Your task to perform on an android device: check google app version Image 0: 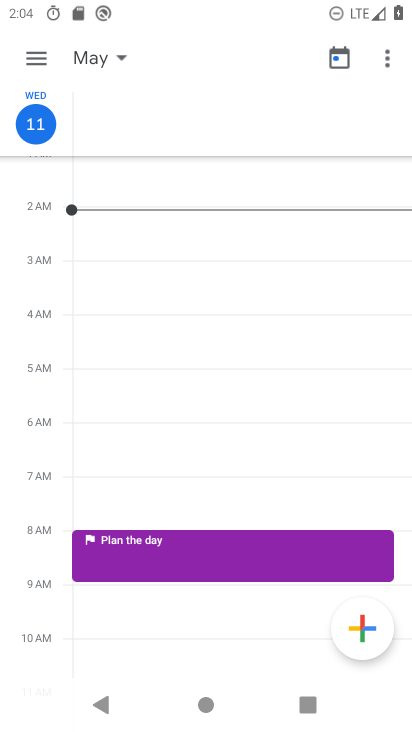
Step 0: press home button
Your task to perform on an android device: check google app version Image 1: 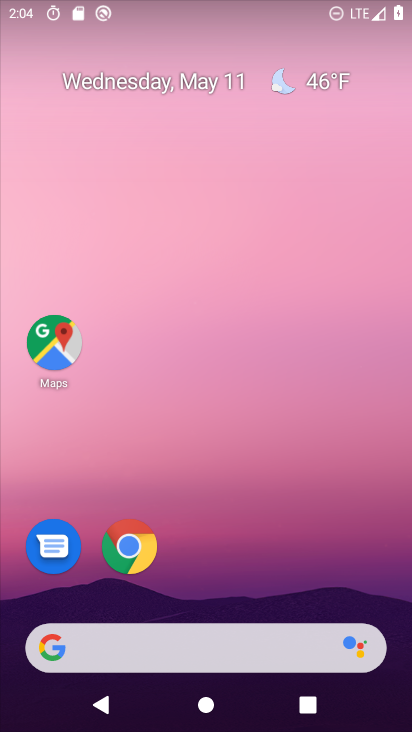
Step 1: drag from (260, 669) to (250, 188)
Your task to perform on an android device: check google app version Image 2: 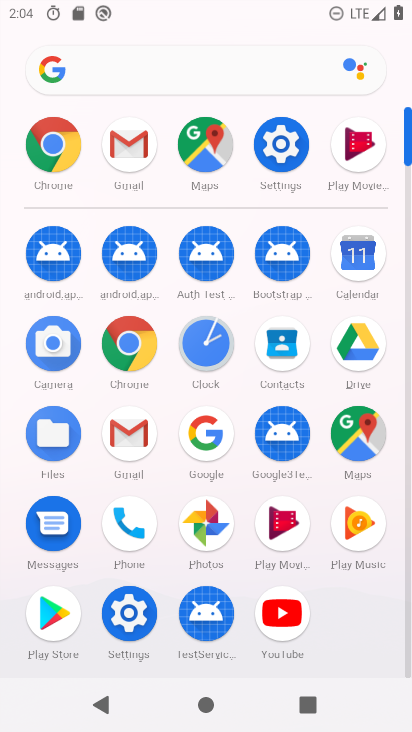
Step 2: click (61, 154)
Your task to perform on an android device: check google app version Image 3: 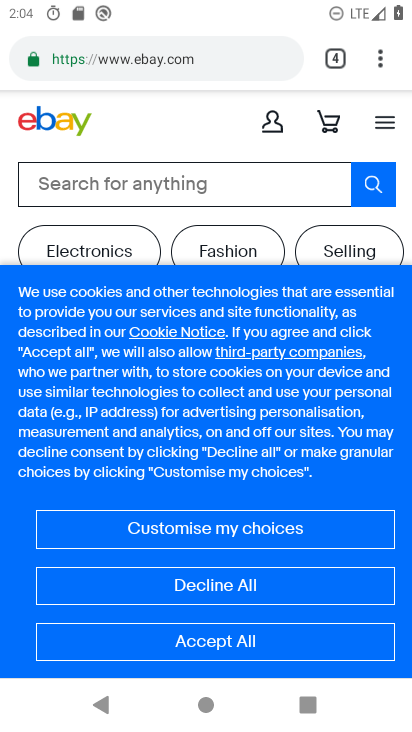
Step 3: click (374, 68)
Your task to perform on an android device: check google app version Image 4: 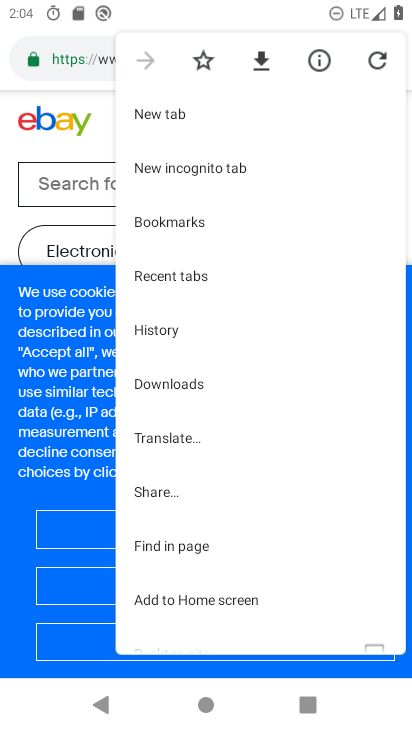
Step 4: drag from (263, 516) to (259, 304)
Your task to perform on an android device: check google app version Image 5: 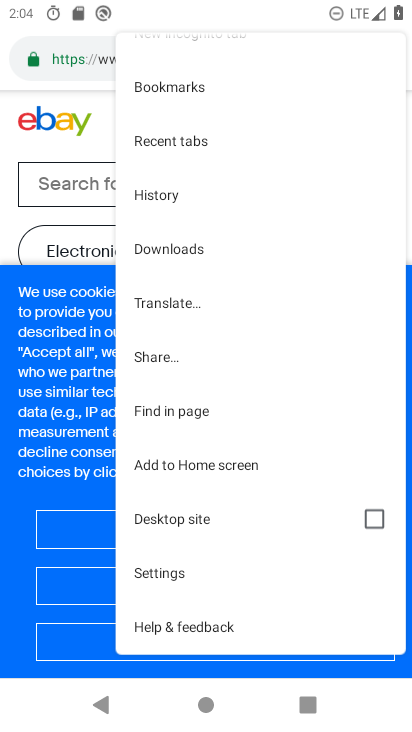
Step 5: click (206, 573)
Your task to perform on an android device: check google app version Image 6: 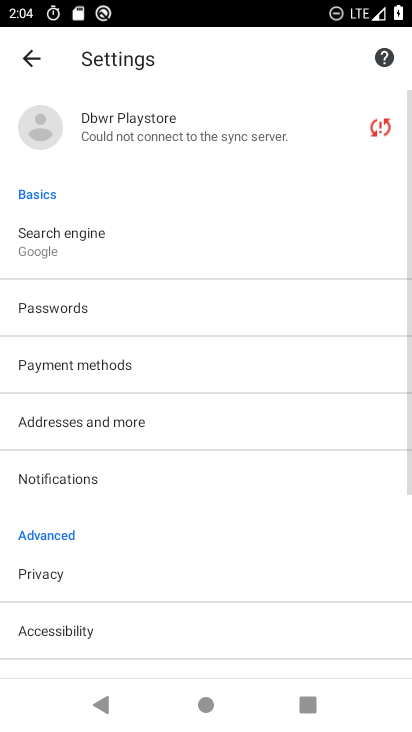
Step 6: drag from (192, 630) to (171, 437)
Your task to perform on an android device: check google app version Image 7: 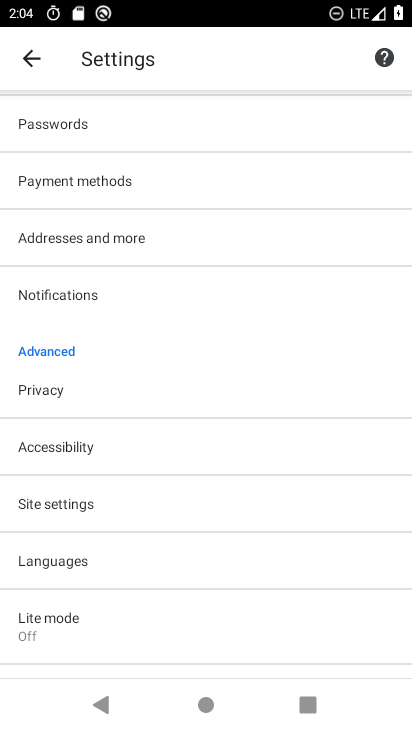
Step 7: drag from (89, 580) to (106, 294)
Your task to perform on an android device: check google app version Image 8: 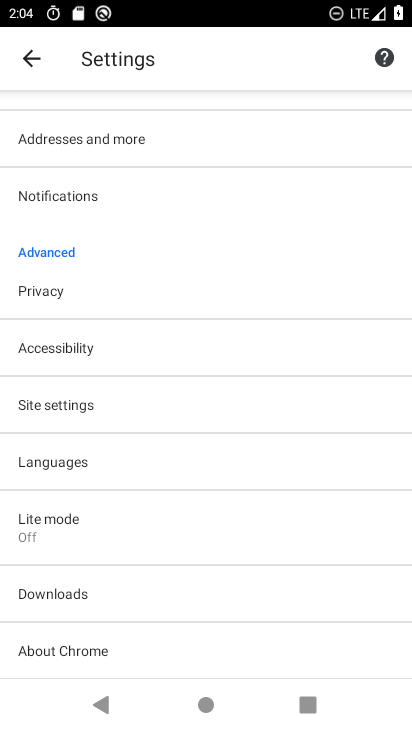
Step 8: click (72, 654)
Your task to perform on an android device: check google app version Image 9: 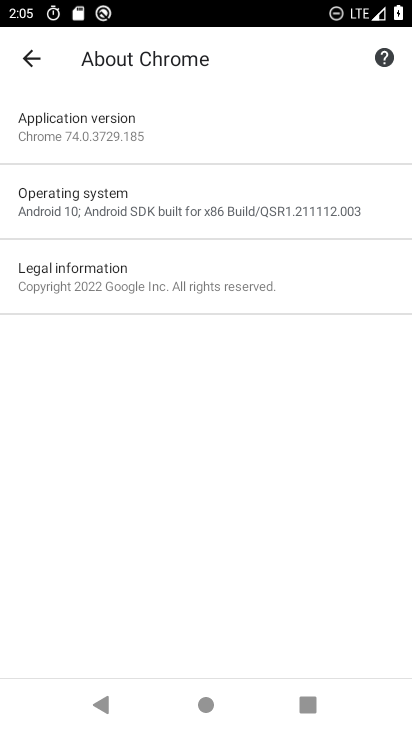
Step 9: click (144, 136)
Your task to perform on an android device: check google app version Image 10: 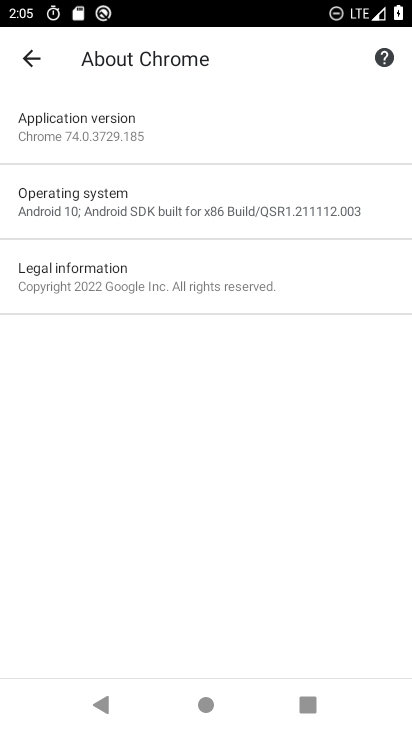
Step 10: task complete